Your task to perform on an android device: Go to battery settings Image 0: 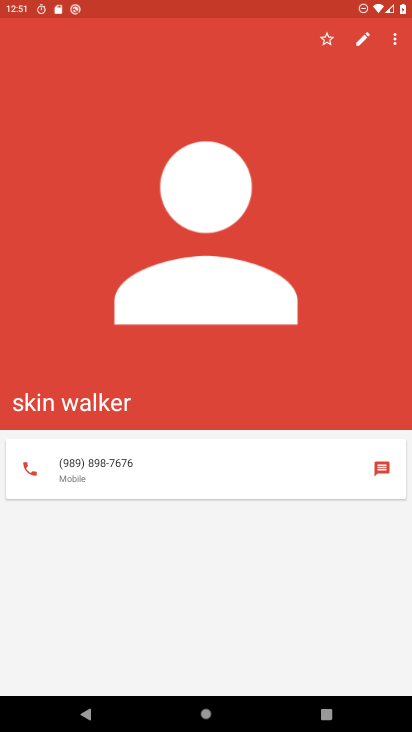
Step 0: press home button
Your task to perform on an android device: Go to battery settings Image 1: 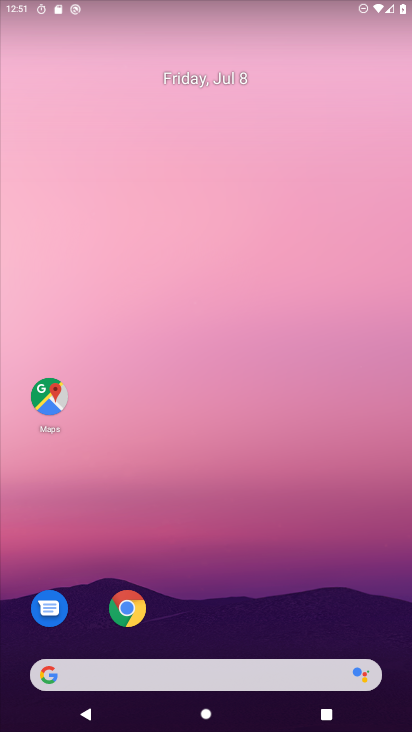
Step 1: drag from (241, 685) to (230, 103)
Your task to perform on an android device: Go to battery settings Image 2: 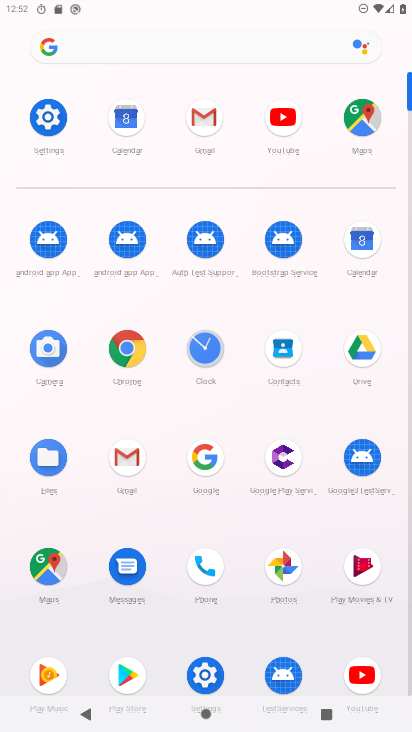
Step 2: click (53, 116)
Your task to perform on an android device: Go to battery settings Image 3: 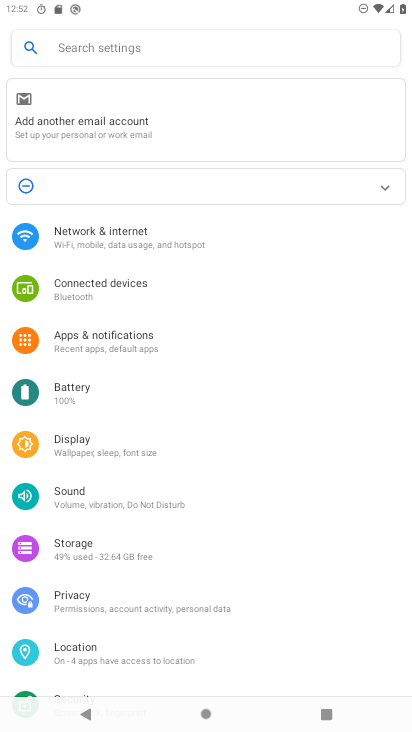
Step 3: click (70, 388)
Your task to perform on an android device: Go to battery settings Image 4: 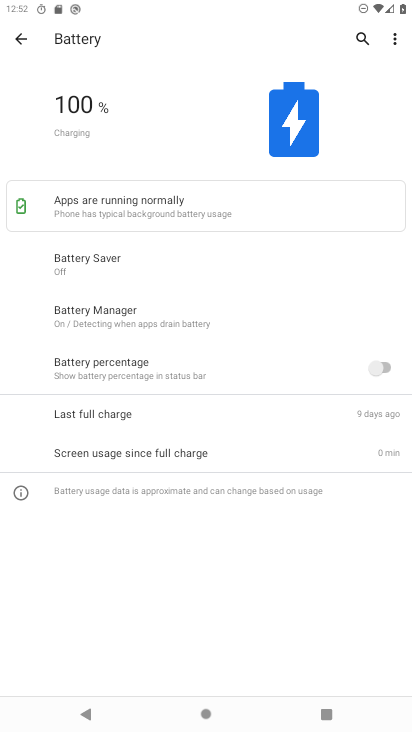
Step 4: task complete